Your task to perform on an android device: What's on my calendar tomorrow? Image 0: 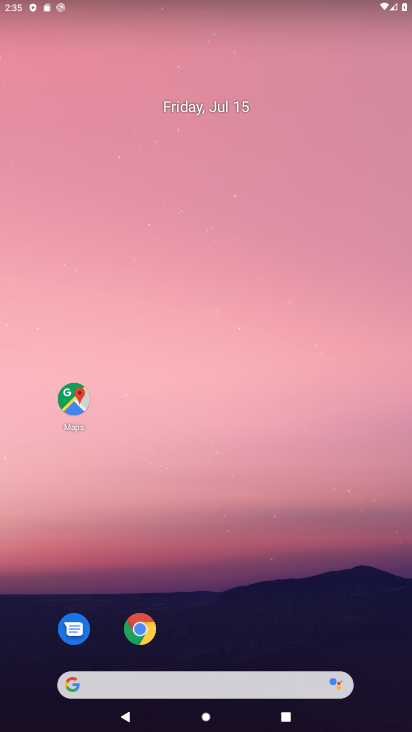
Step 0: drag from (183, 670) to (5, 140)
Your task to perform on an android device: What's on my calendar tomorrow? Image 1: 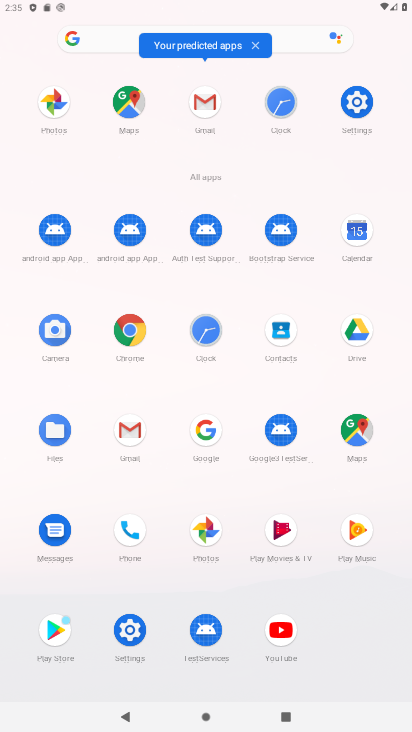
Step 1: click (352, 234)
Your task to perform on an android device: What's on my calendar tomorrow? Image 2: 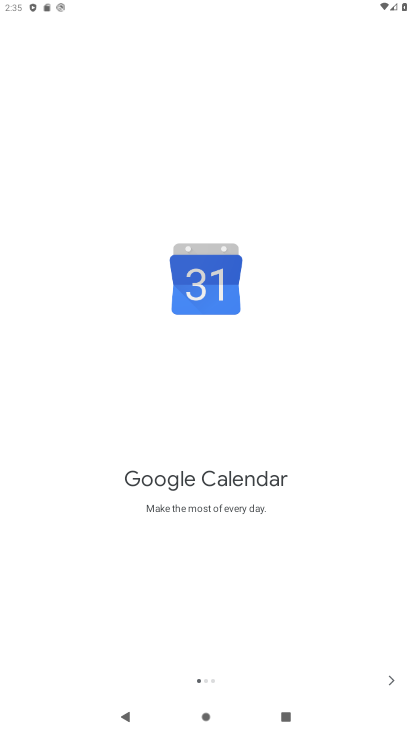
Step 2: click (399, 675)
Your task to perform on an android device: What's on my calendar tomorrow? Image 3: 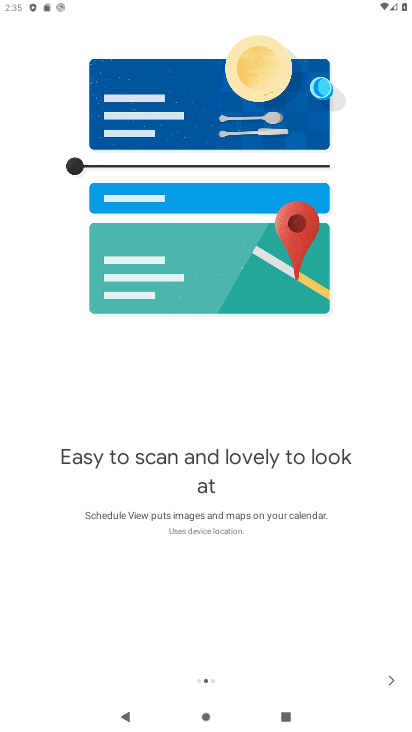
Step 3: click (395, 677)
Your task to perform on an android device: What's on my calendar tomorrow? Image 4: 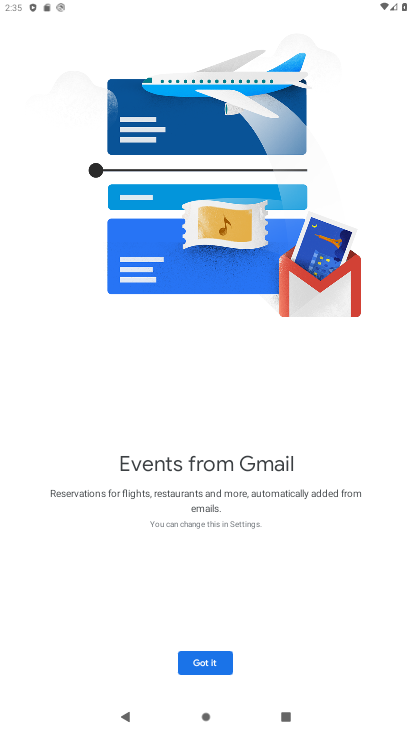
Step 4: click (193, 669)
Your task to perform on an android device: What's on my calendar tomorrow? Image 5: 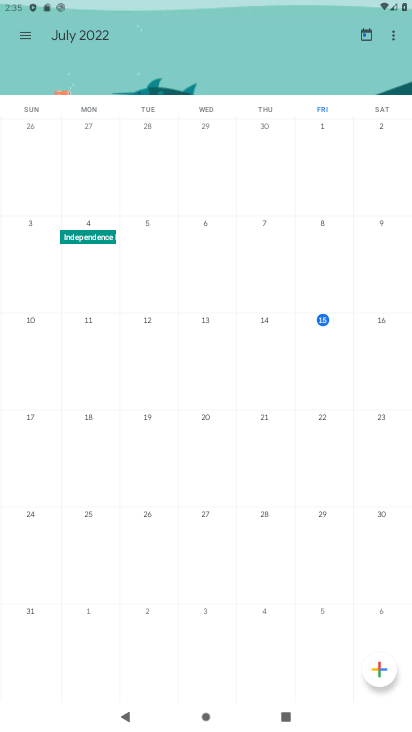
Step 5: click (372, 323)
Your task to perform on an android device: What's on my calendar tomorrow? Image 6: 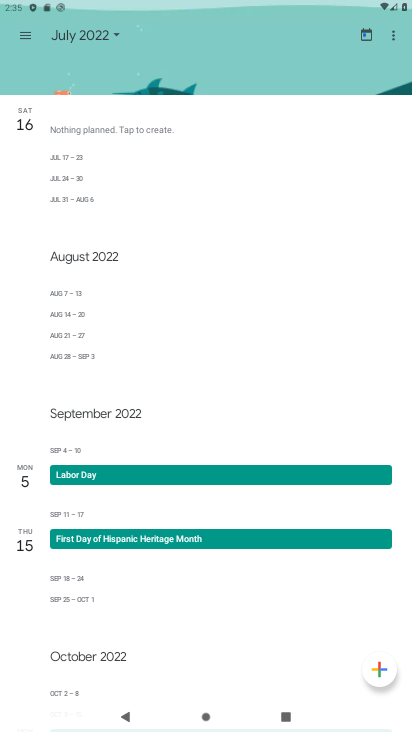
Step 6: task complete